Your task to perform on an android device: open a new tab in the chrome app Image 0: 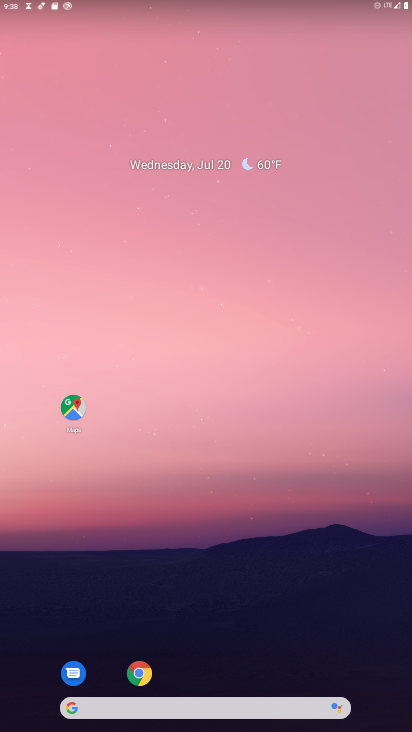
Step 0: click (141, 688)
Your task to perform on an android device: open a new tab in the chrome app Image 1: 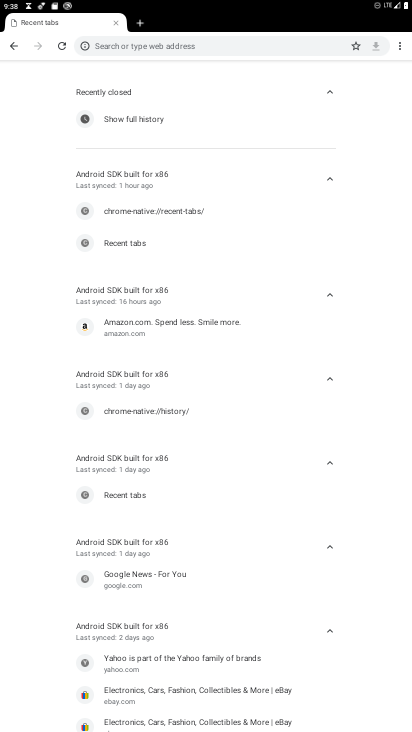
Step 1: click (400, 44)
Your task to perform on an android device: open a new tab in the chrome app Image 2: 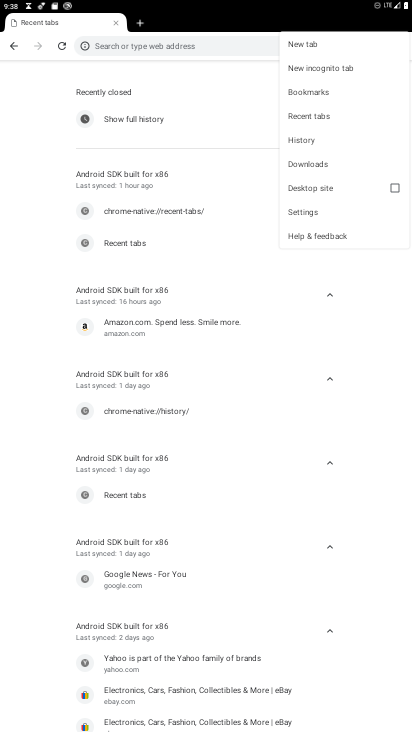
Step 2: click (345, 44)
Your task to perform on an android device: open a new tab in the chrome app Image 3: 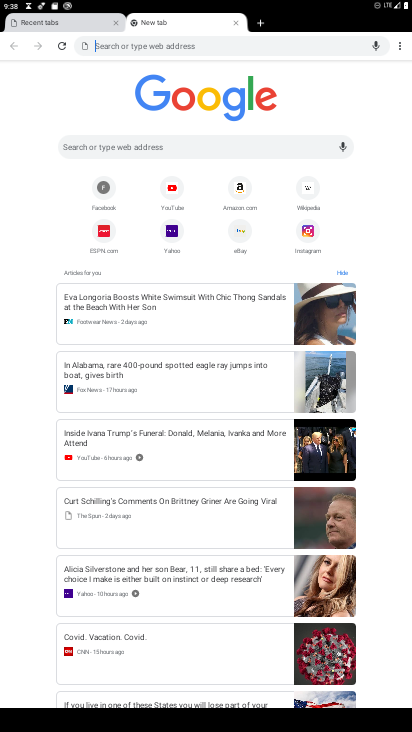
Step 3: task complete